Your task to perform on an android device: manage bookmarks in the chrome app Image 0: 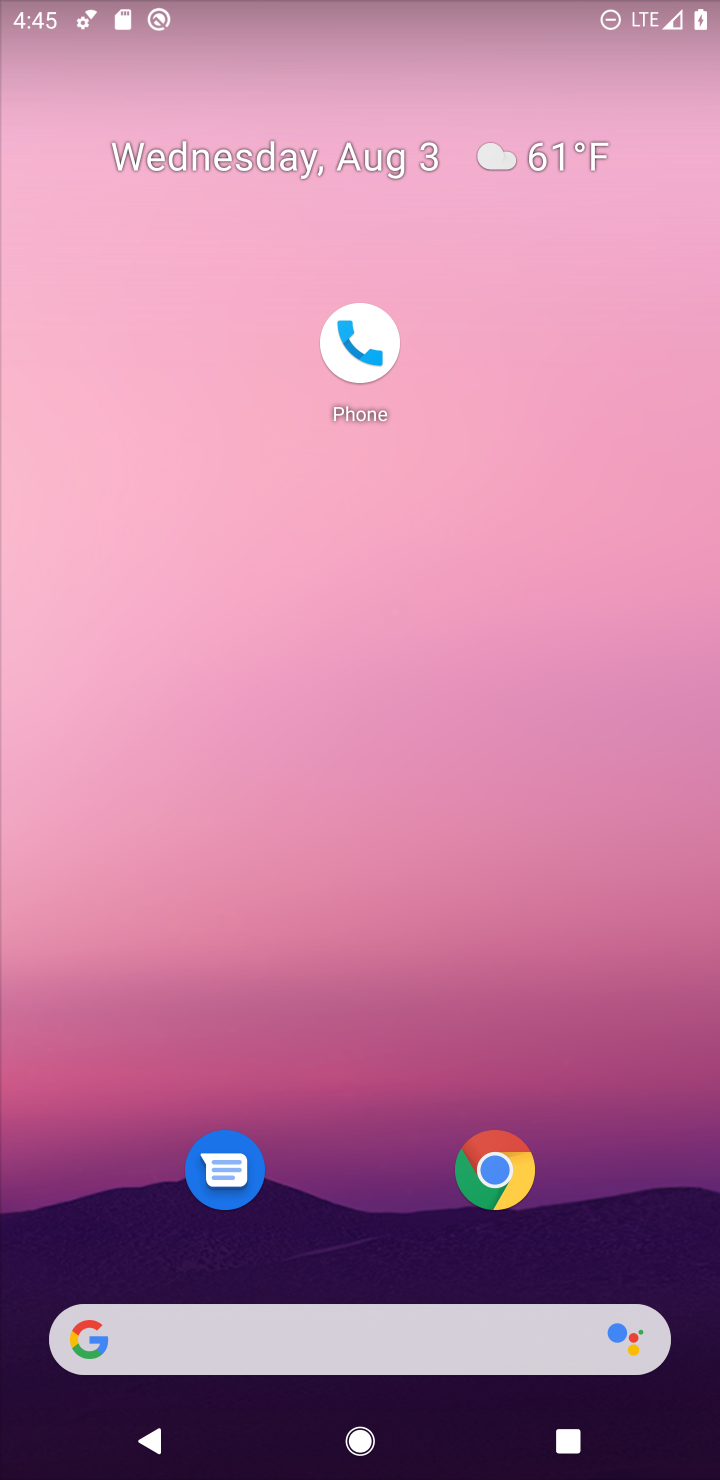
Step 0: press back button
Your task to perform on an android device: manage bookmarks in the chrome app Image 1: 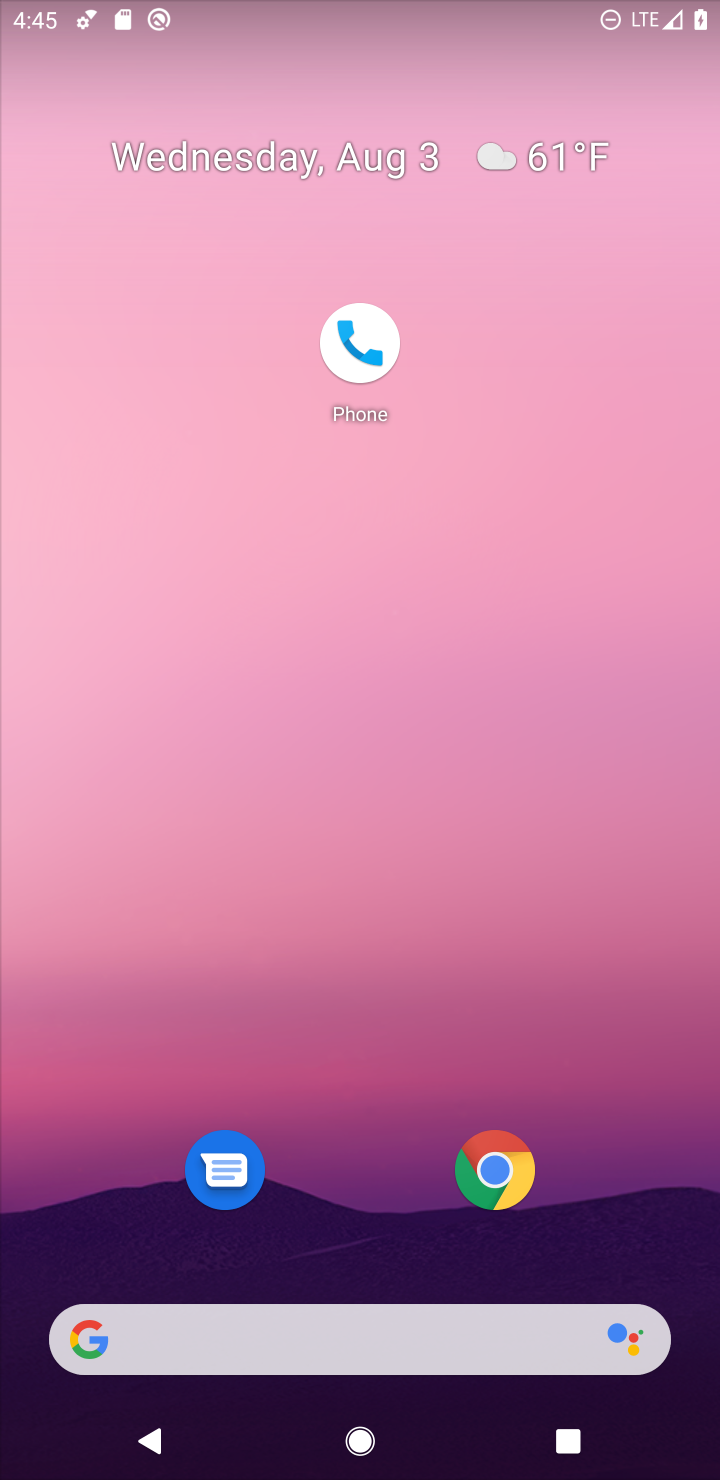
Step 1: click (486, 1157)
Your task to perform on an android device: manage bookmarks in the chrome app Image 2: 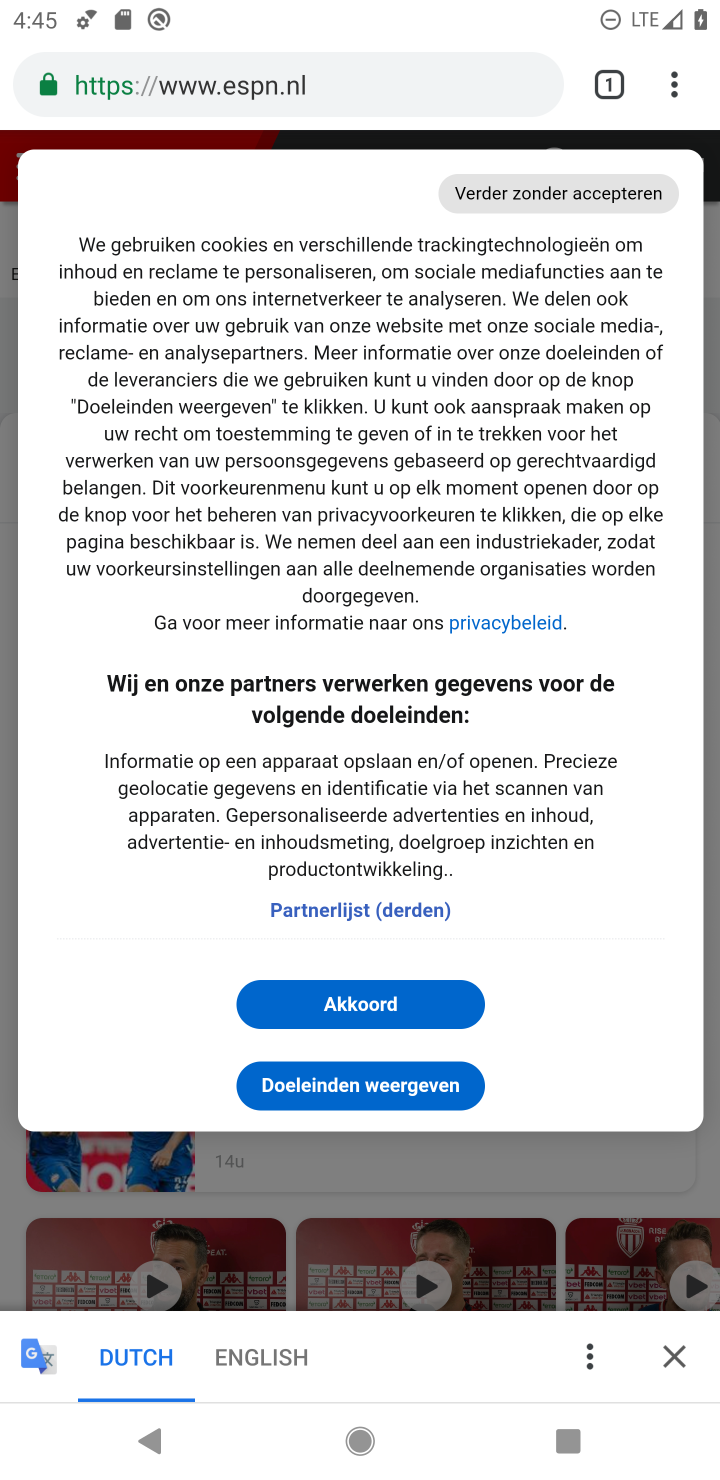
Step 2: click (486, 1150)
Your task to perform on an android device: manage bookmarks in the chrome app Image 3: 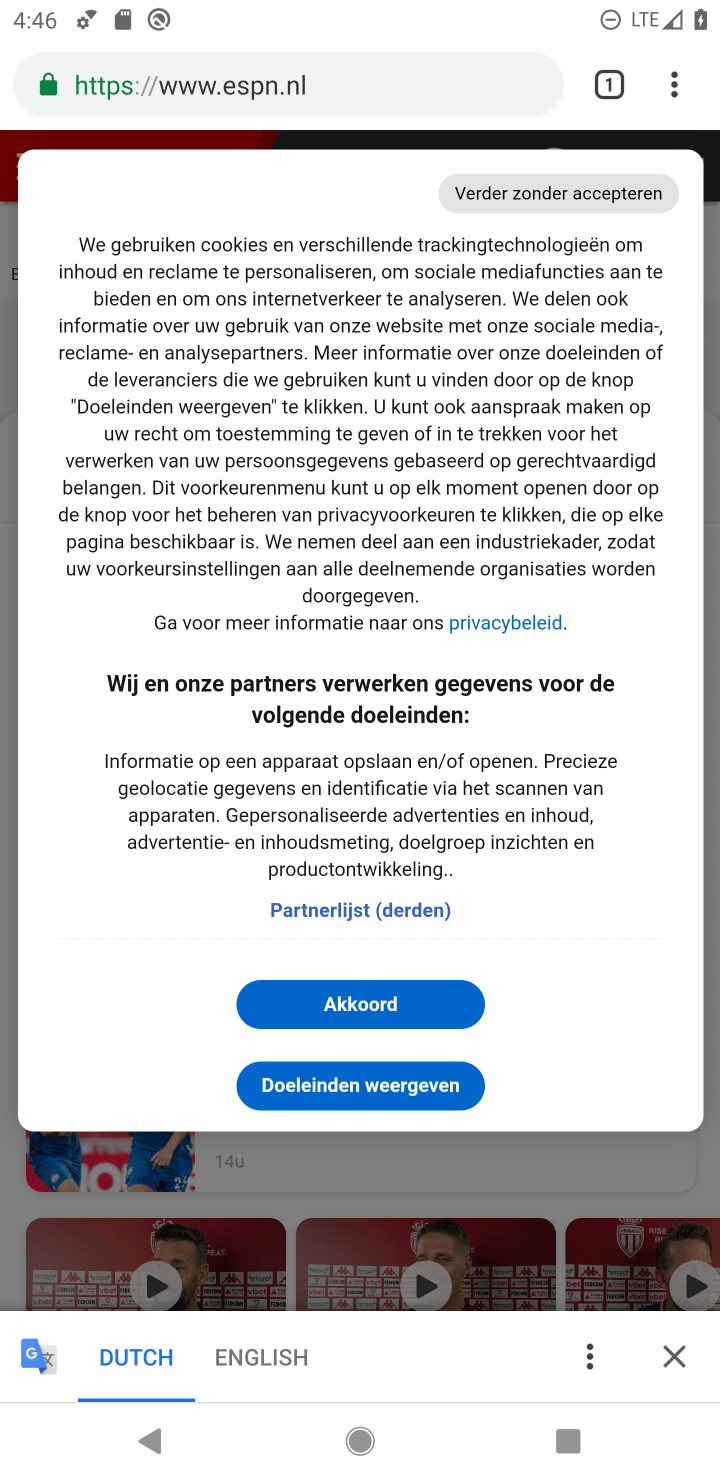
Step 3: click (673, 75)
Your task to perform on an android device: manage bookmarks in the chrome app Image 4: 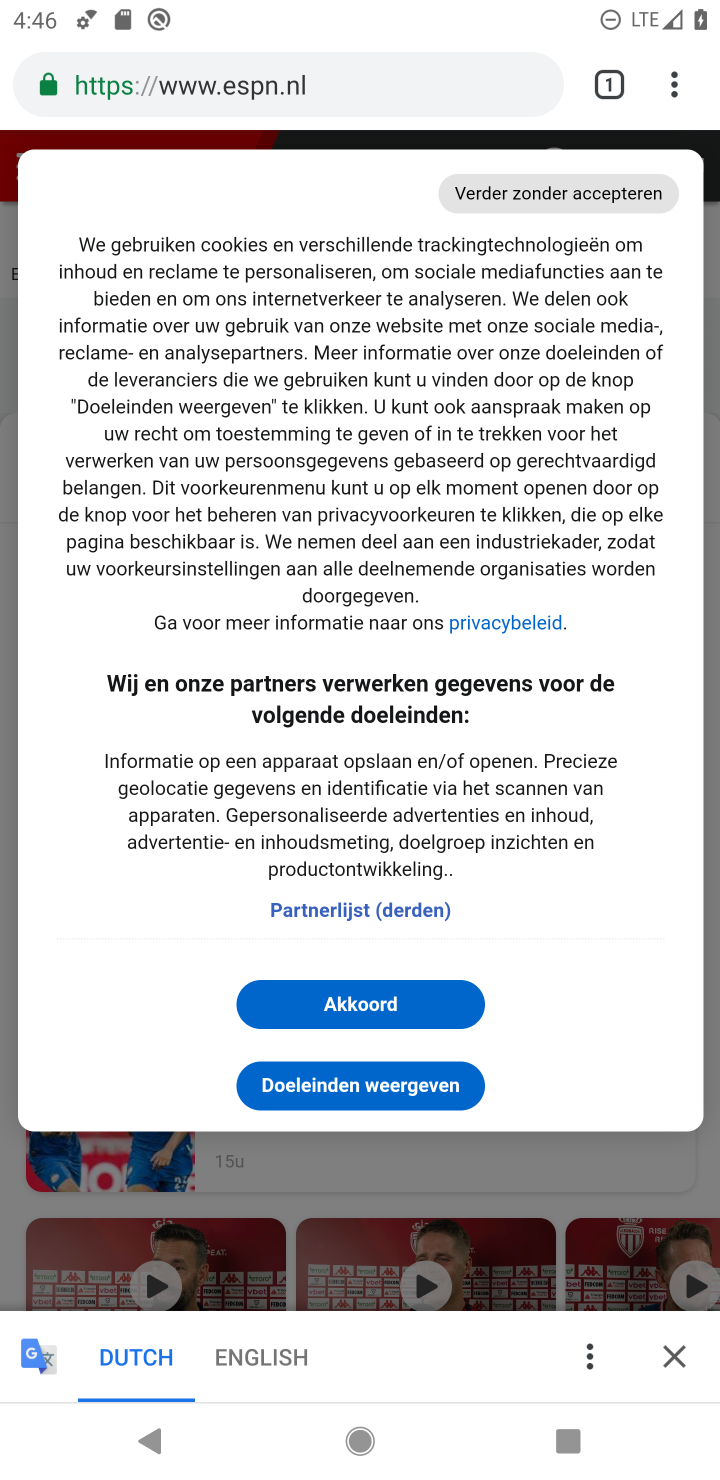
Step 4: click (673, 75)
Your task to perform on an android device: manage bookmarks in the chrome app Image 5: 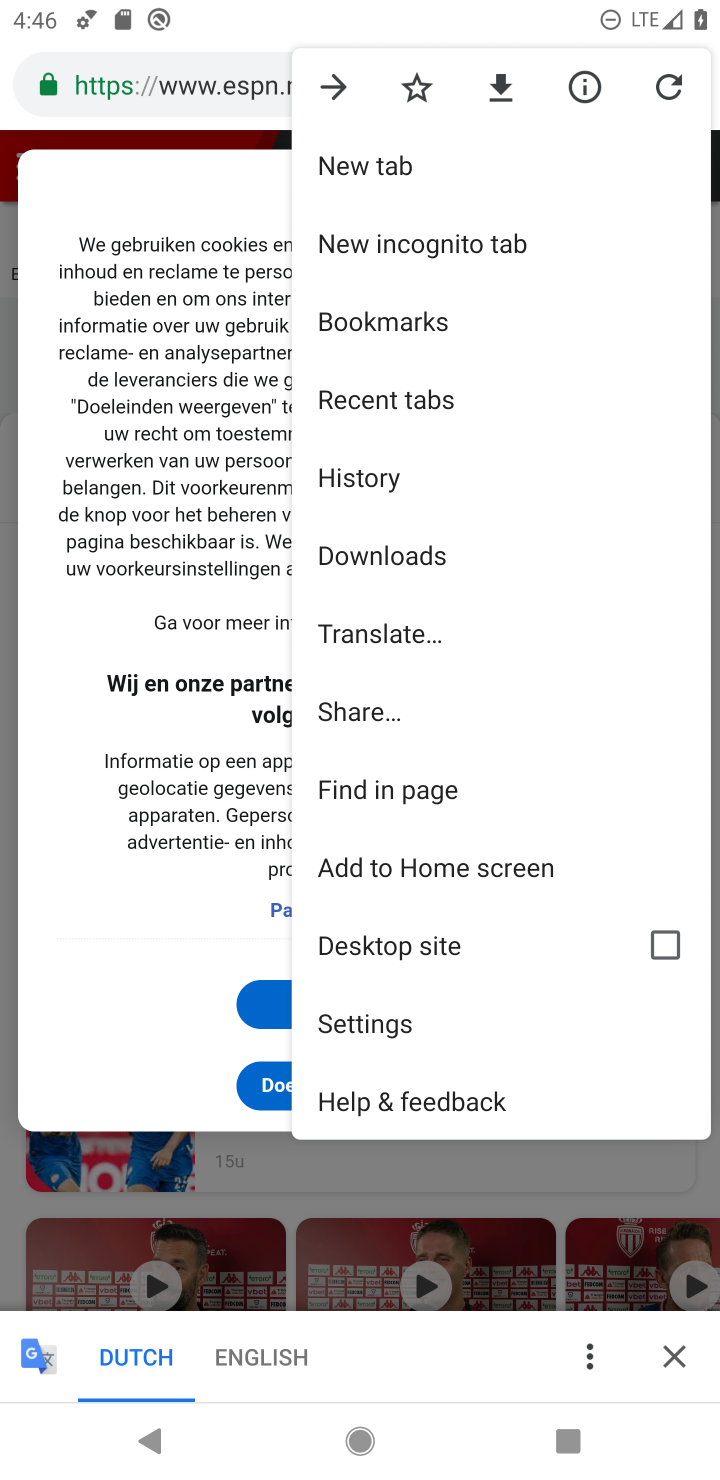
Step 5: click (398, 1029)
Your task to perform on an android device: manage bookmarks in the chrome app Image 6: 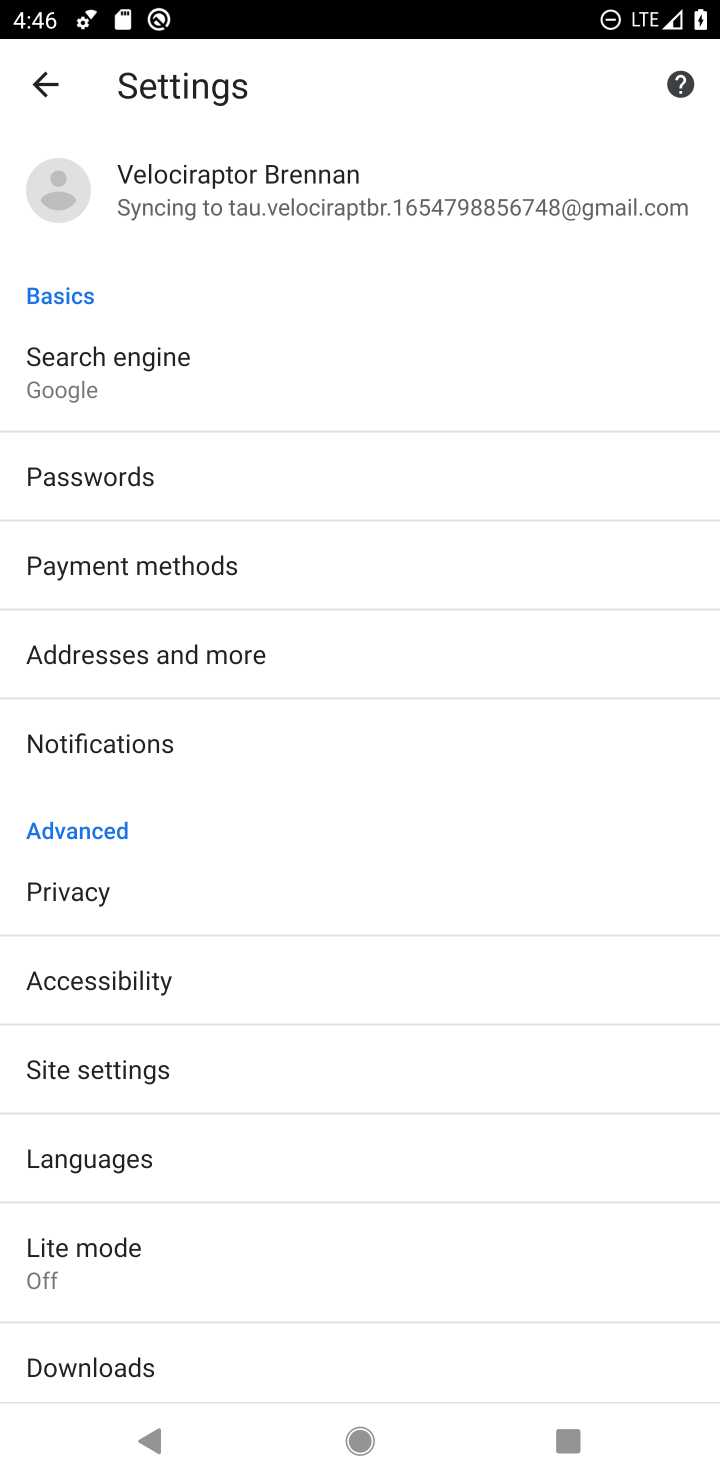
Step 6: click (46, 66)
Your task to perform on an android device: manage bookmarks in the chrome app Image 7: 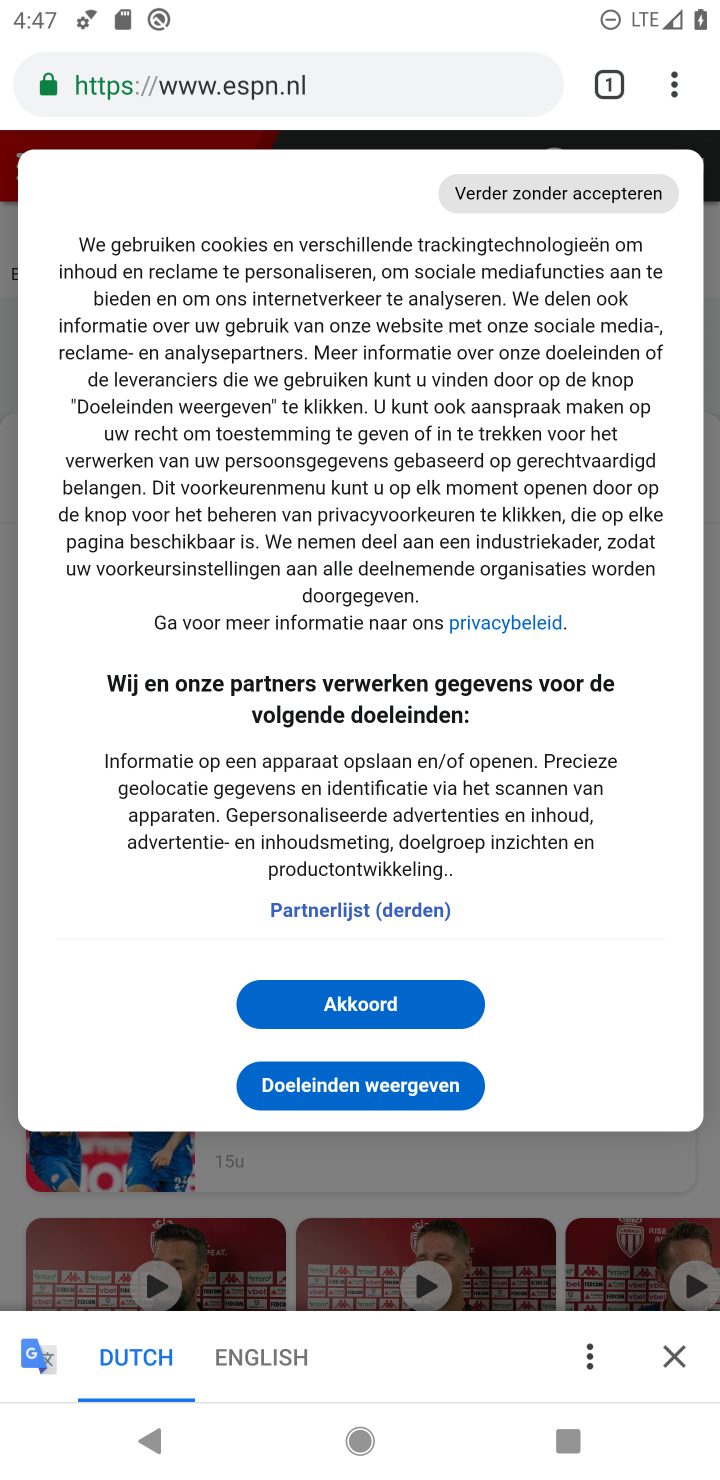
Step 7: click (667, 77)
Your task to perform on an android device: manage bookmarks in the chrome app Image 8: 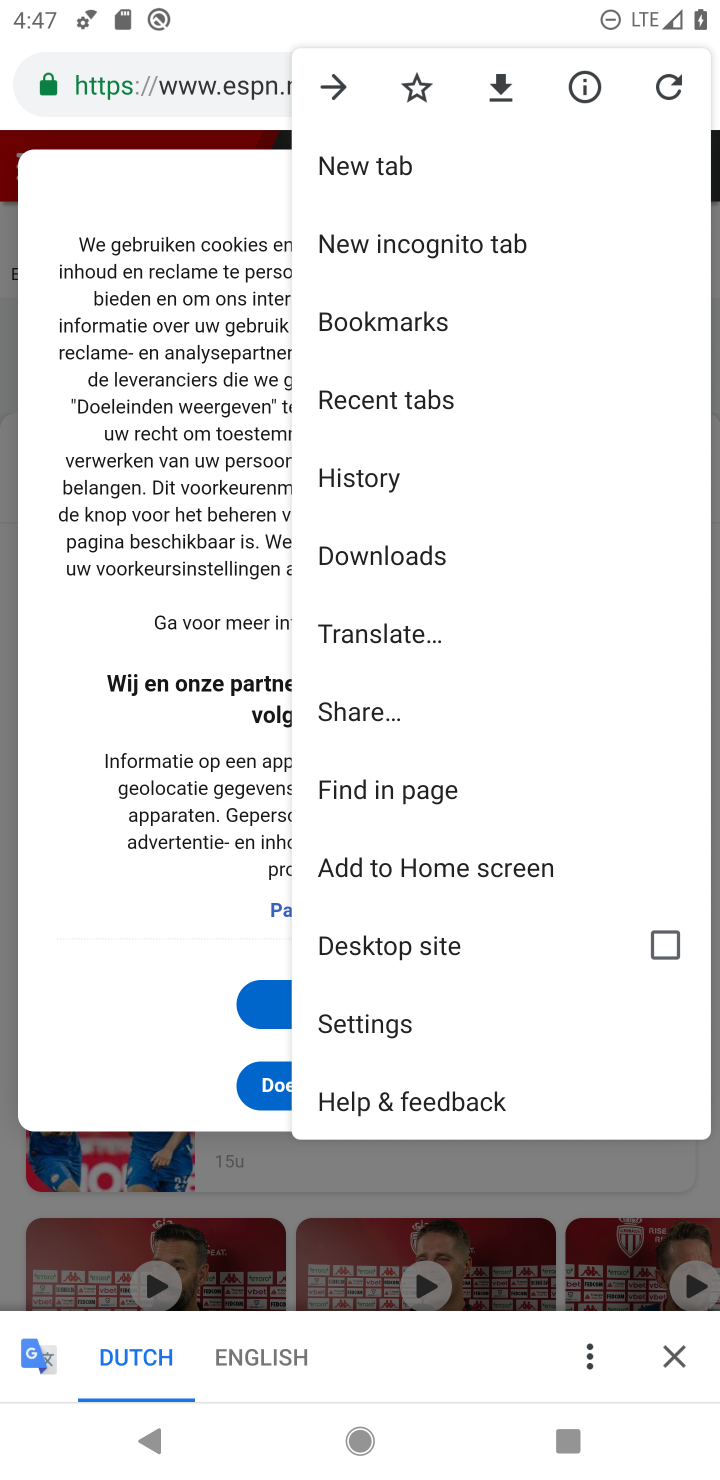
Step 8: click (441, 326)
Your task to perform on an android device: manage bookmarks in the chrome app Image 9: 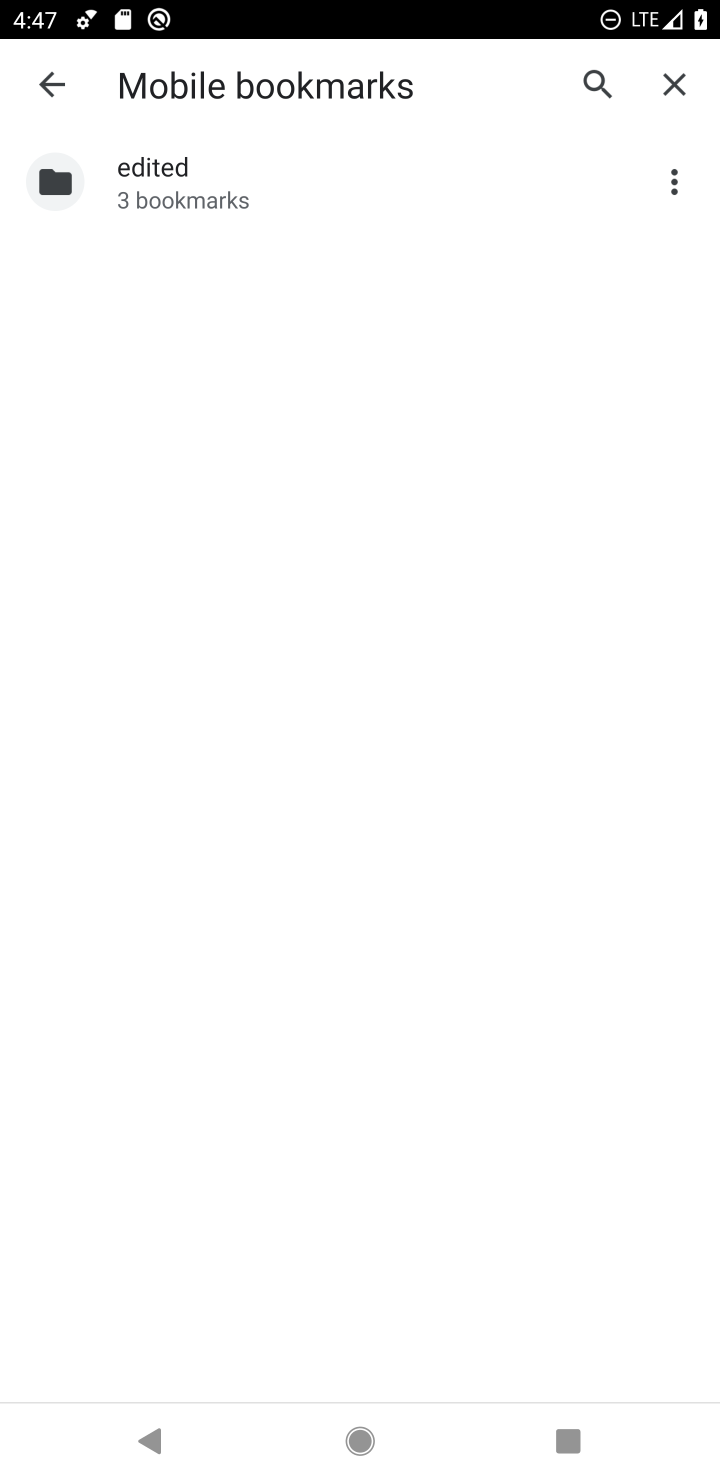
Step 9: click (658, 202)
Your task to perform on an android device: manage bookmarks in the chrome app Image 10: 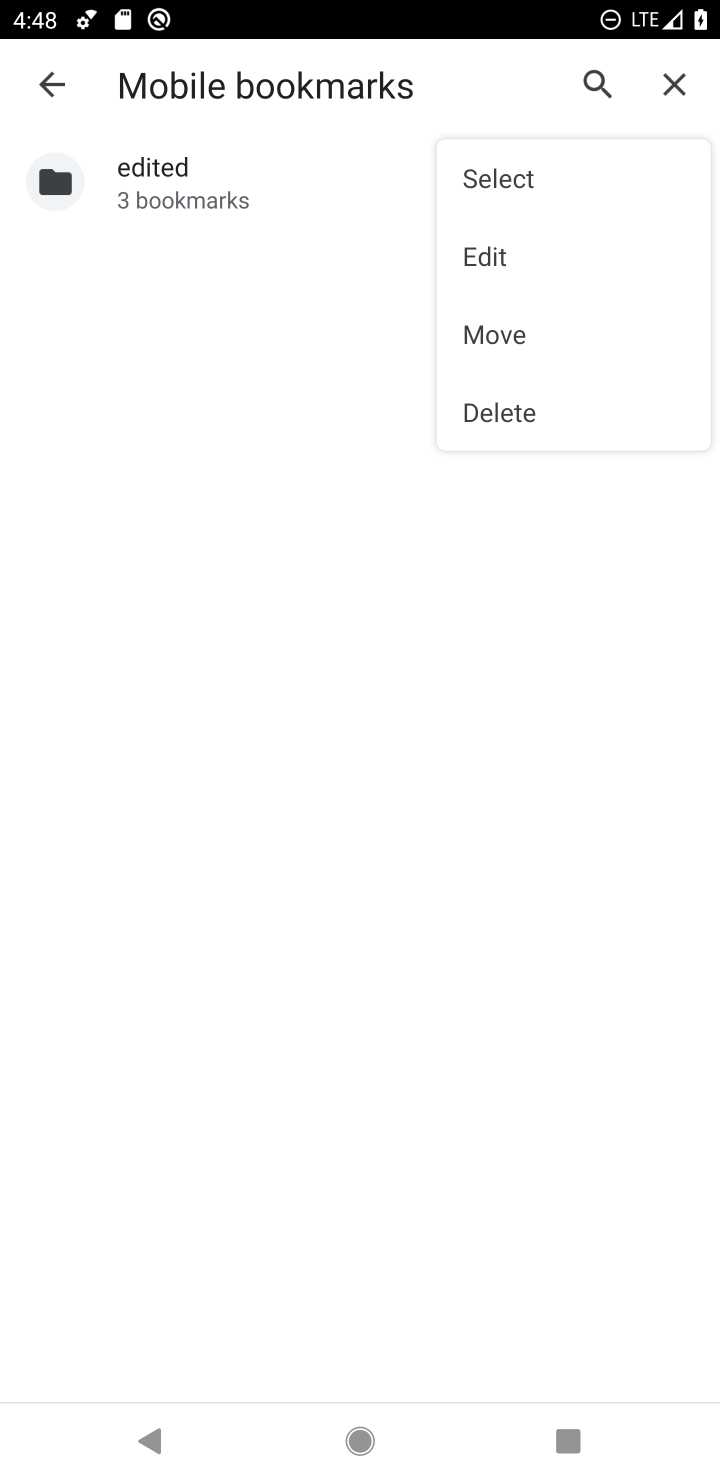
Step 10: click (498, 407)
Your task to perform on an android device: manage bookmarks in the chrome app Image 11: 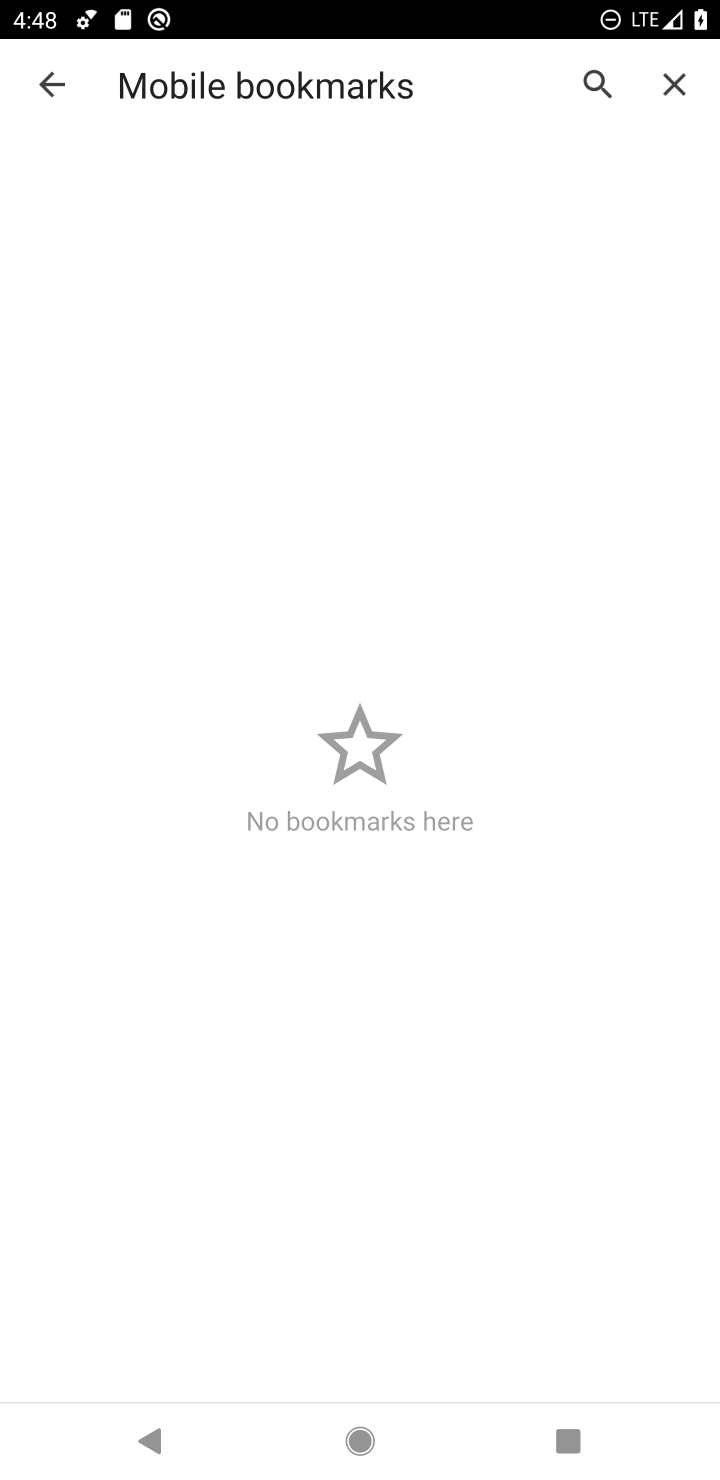
Step 11: task complete